Your task to perform on an android device: Go to internet settings Image 0: 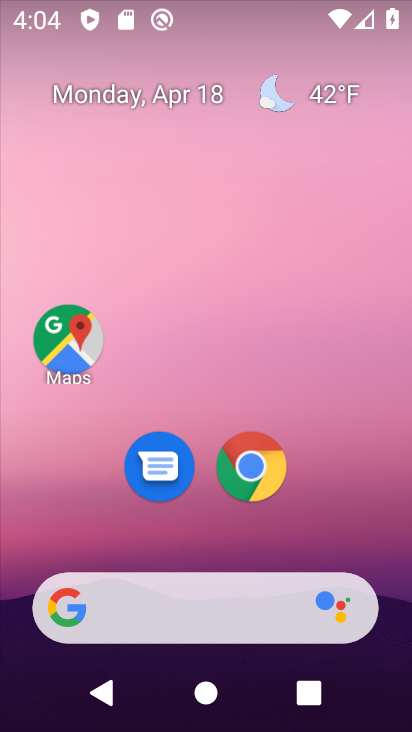
Step 0: drag from (390, 581) to (363, 65)
Your task to perform on an android device: Go to internet settings Image 1: 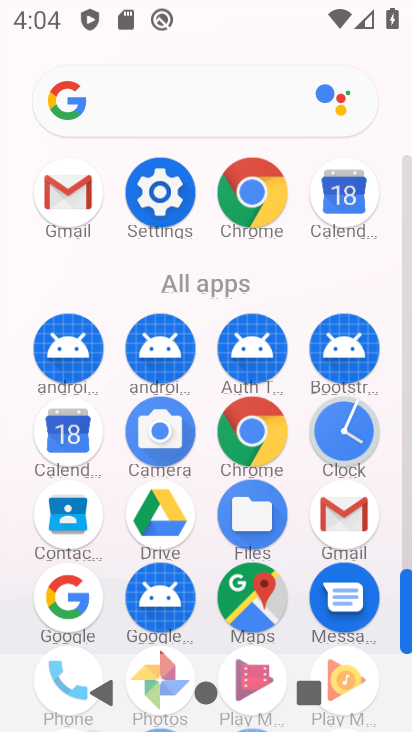
Step 1: drag from (391, 607) to (395, 279)
Your task to perform on an android device: Go to internet settings Image 2: 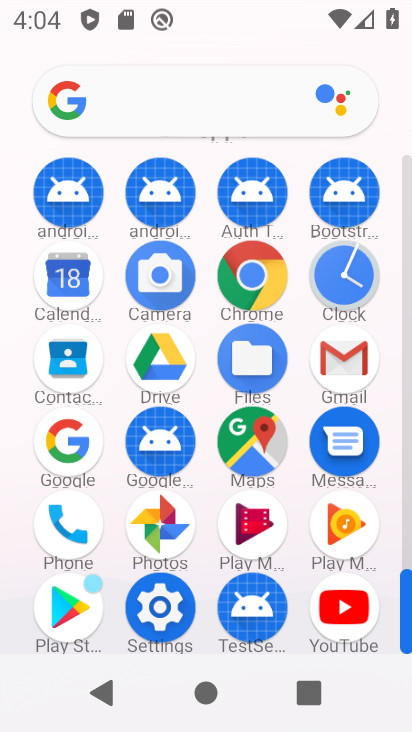
Step 2: click (157, 605)
Your task to perform on an android device: Go to internet settings Image 3: 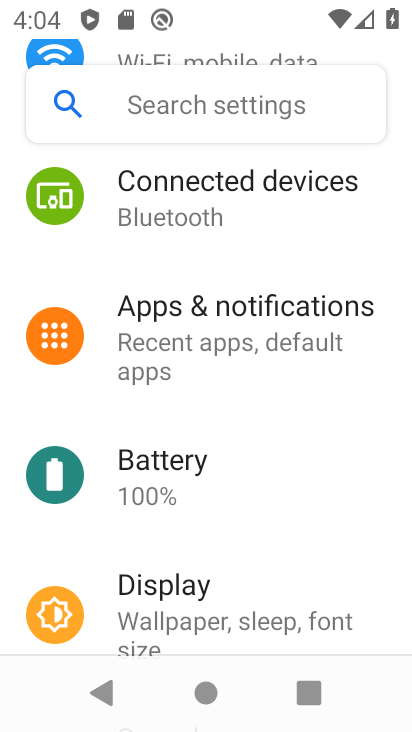
Step 3: drag from (400, 212) to (354, 540)
Your task to perform on an android device: Go to internet settings Image 4: 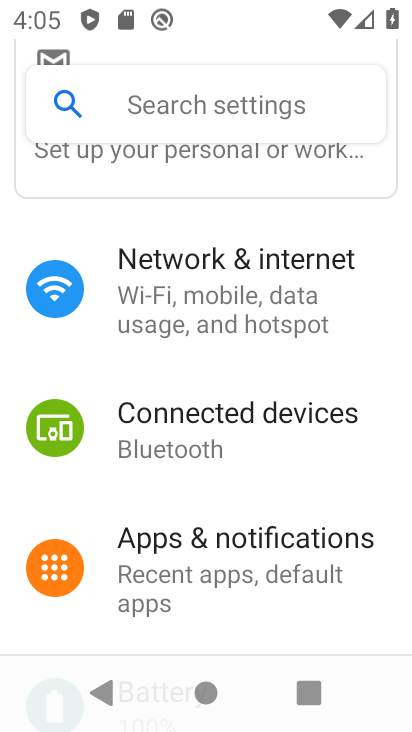
Step 4: click (171, 312)
Your task to perform on an android device: Go to internet settings Image 5: 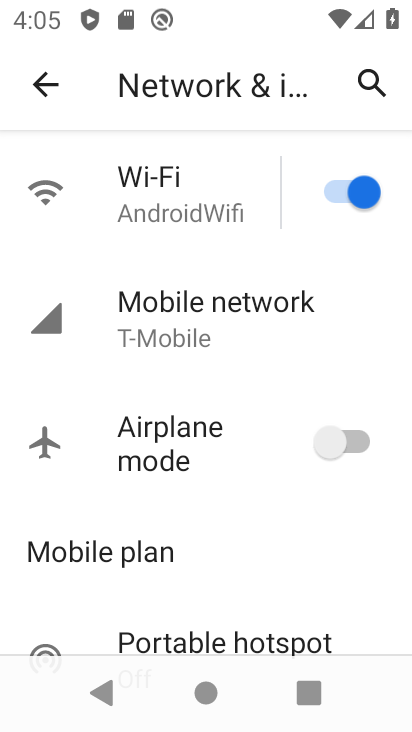
Step 5: click (183, 310)
Your task to perform on an android device: Go to internet settings Image 6: 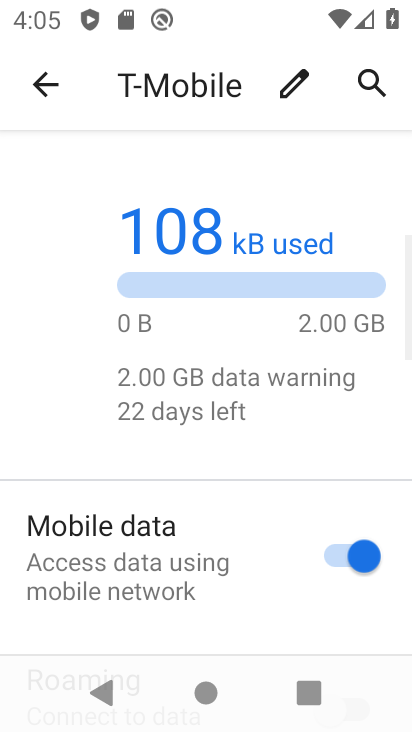
Step 6: task complete